Your task to perform on an android device: open a new tab in the chrome app Image 0: 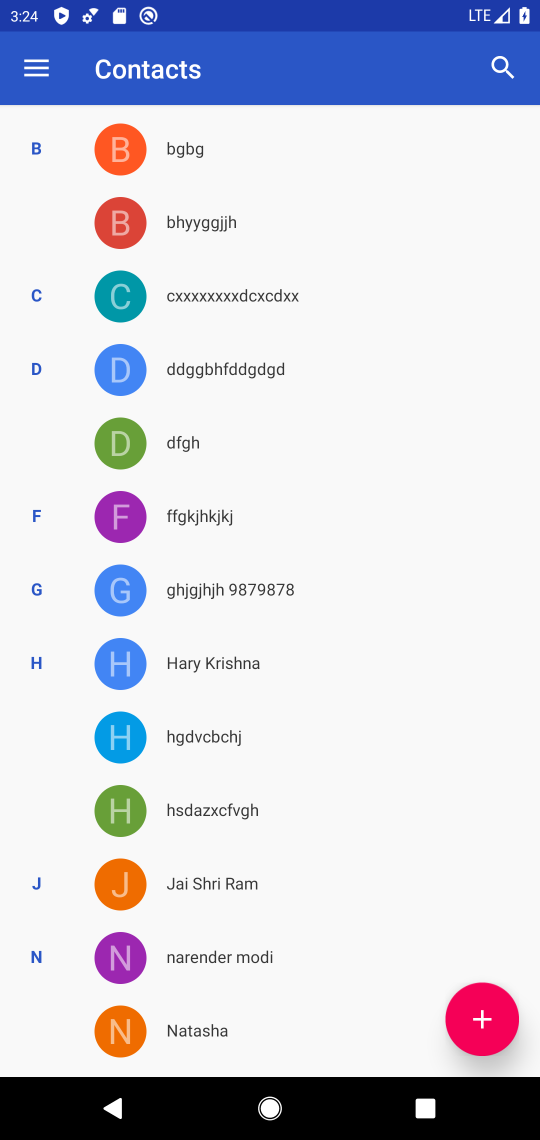
Step 0: press back button
Your task to perform on an android device: open a new tab in the chrome app Image 1: 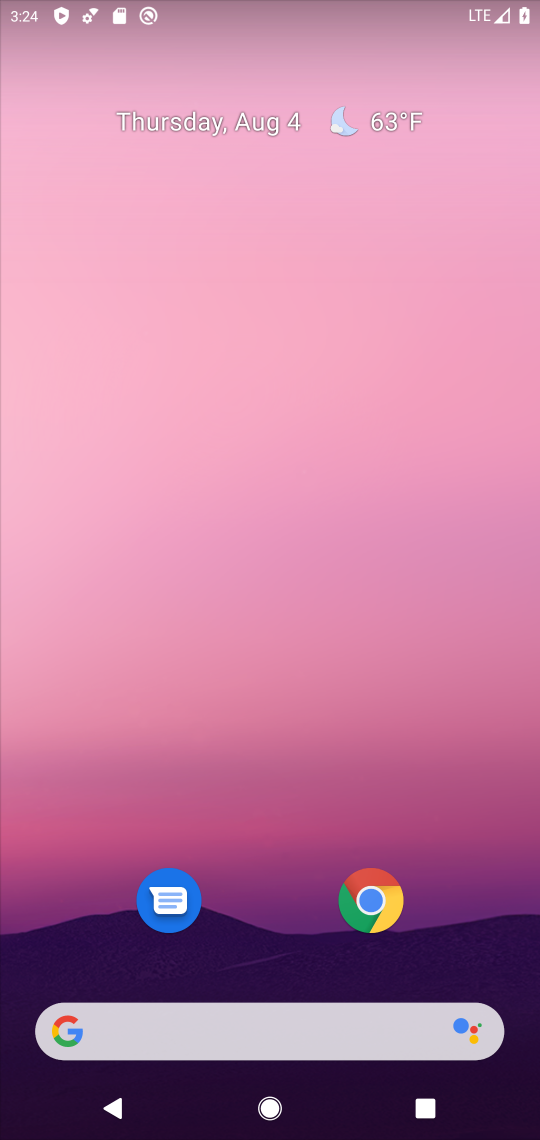
Step 1: click (374, 905)
Your task to perform on an android device: open a new tab in the chrome app Image 2: 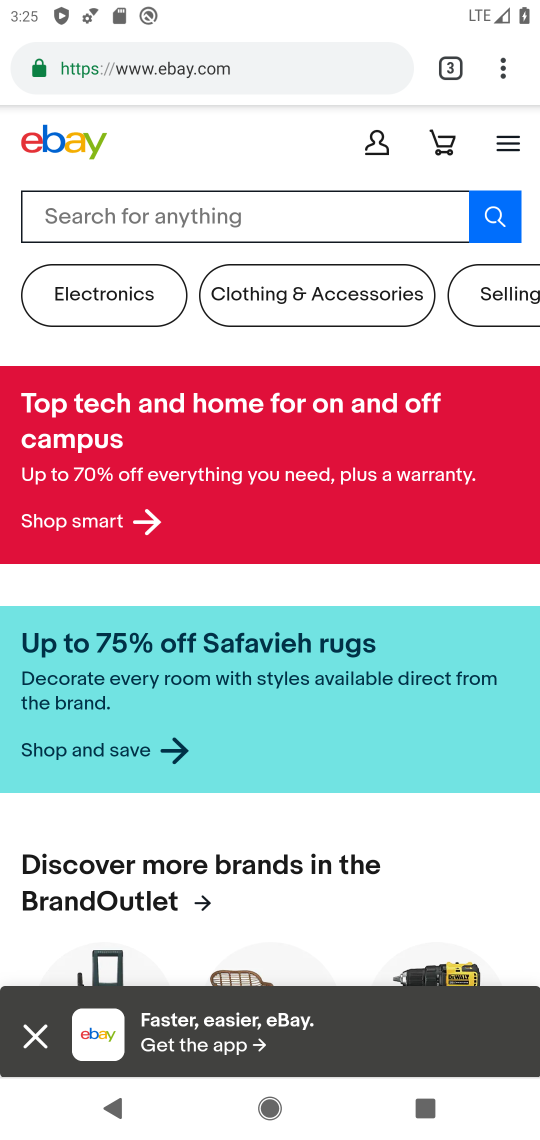
Step 2: click (461, 79)
Your task to perform on an android device: open a new tab in the chrome app Image 3: 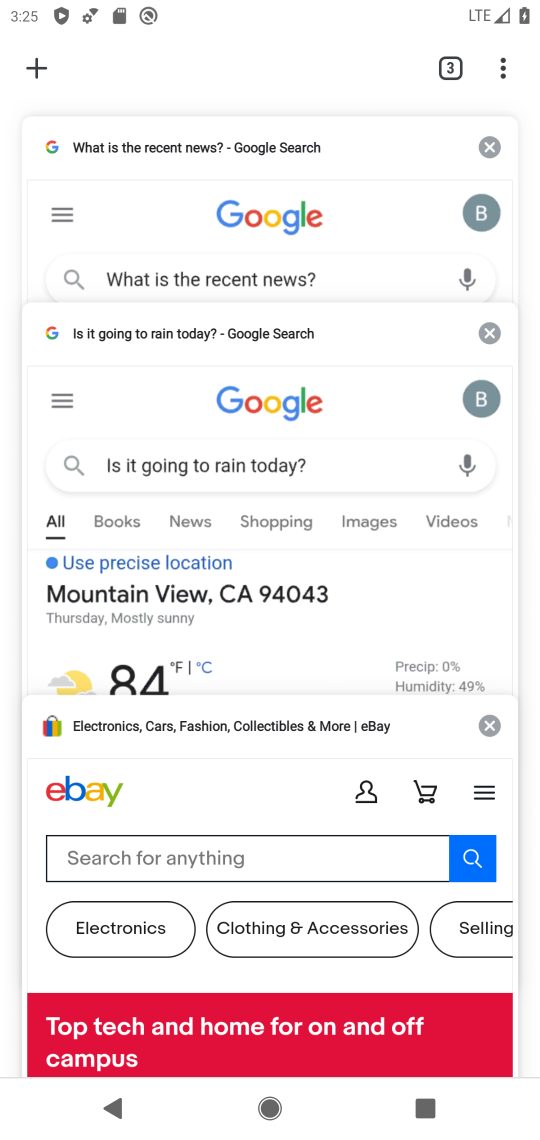
Step 3: click (33, 74)
Your task to perform on an android device: open a new tab in the chrome app Image 4: 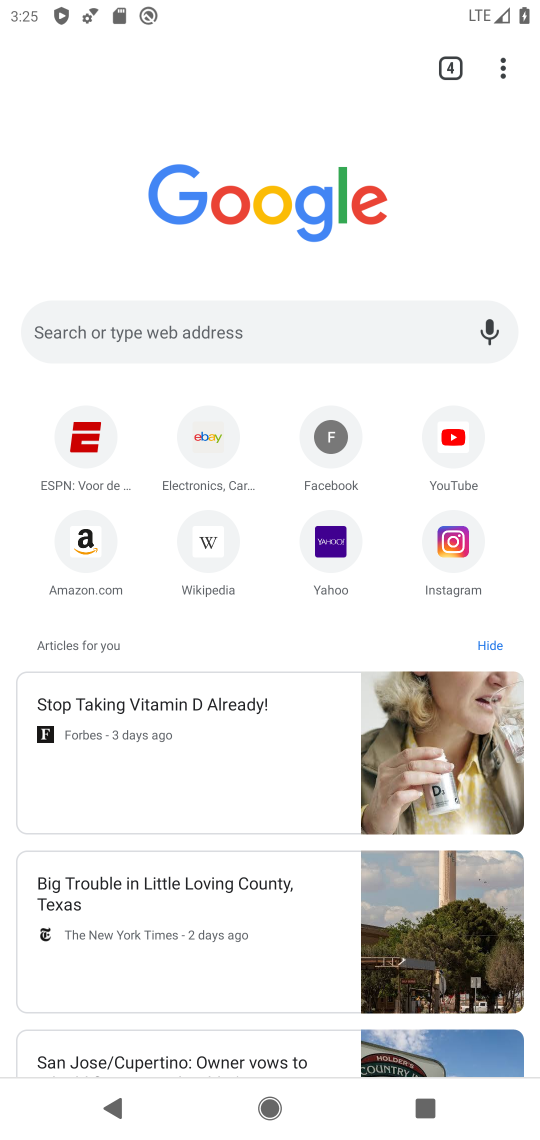
Step 4: task complete